Your task to perform on an android device: visit the assistant section in the google photos Image 0: 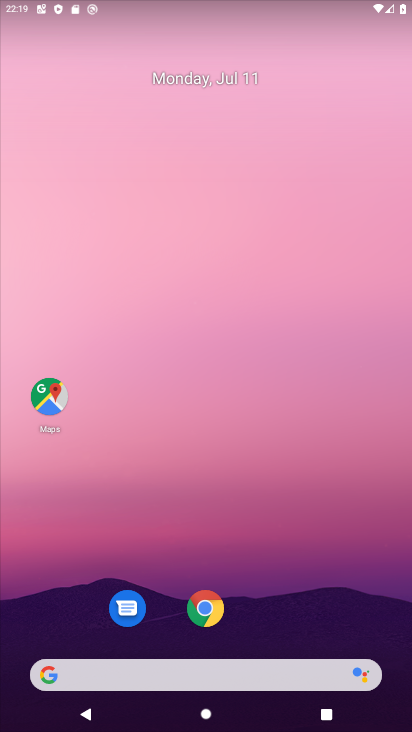
Step 0: drag from (32, 713) to (302, 44)
Your task to perform on an android device: visit the assistant section in the google photos Image 1: 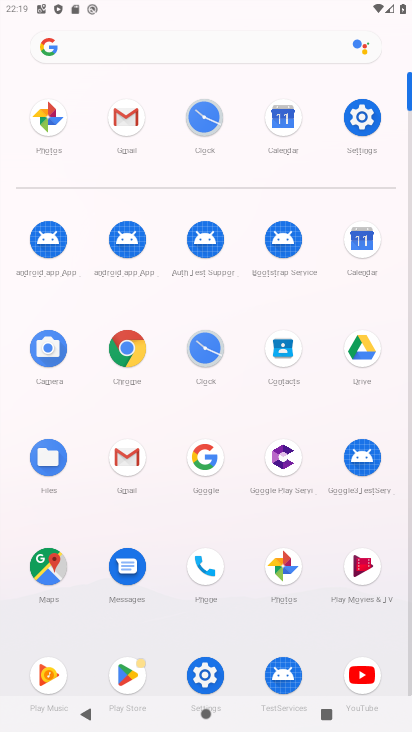
Step 1: click (281, 576)
Your task to perform on an android device: visit the assistant section in the google photos Image 2: 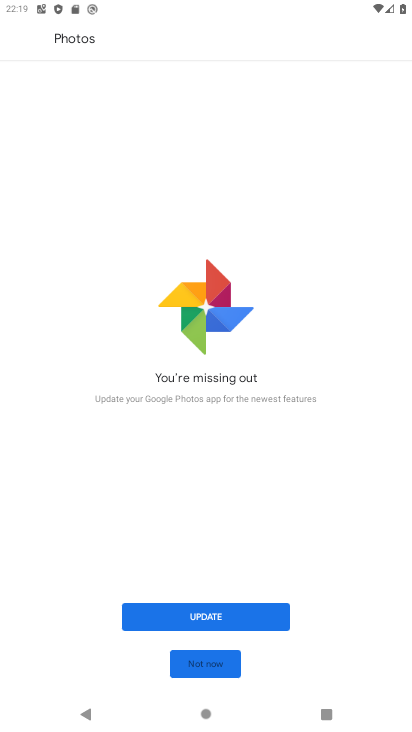
Step 2: click (201, 655)
Your task to perform on an android device: visit the assistant section in the google photos Image 3: 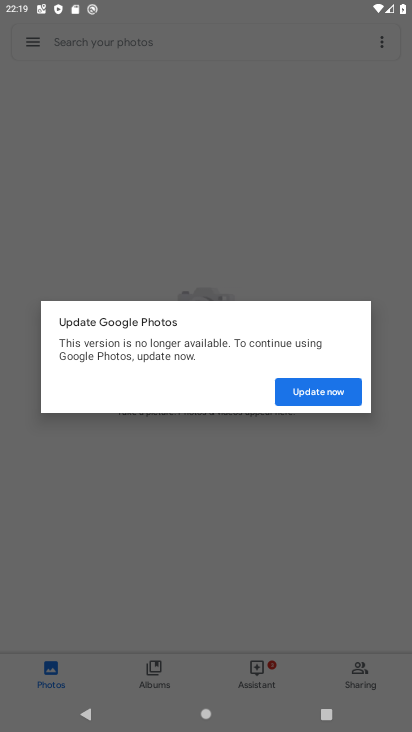
Step 3: click (321, 388)
Your task to perform on an android device: visit the assistant section in the google photos Image 4: 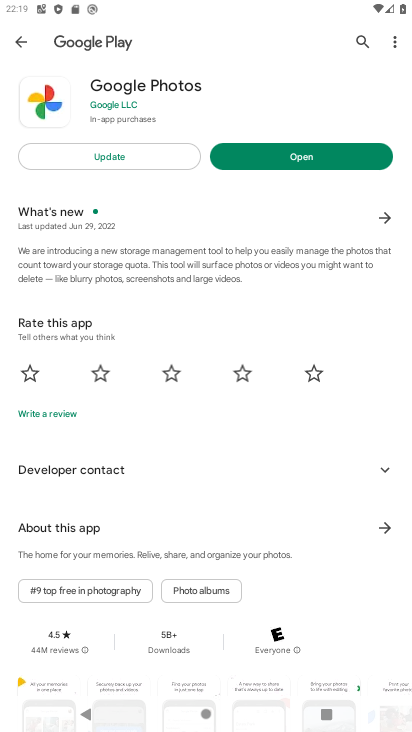
Step 4: click (304, 159)
Your task to perform on an android device: visit the assistant section in the google photos Image 5: 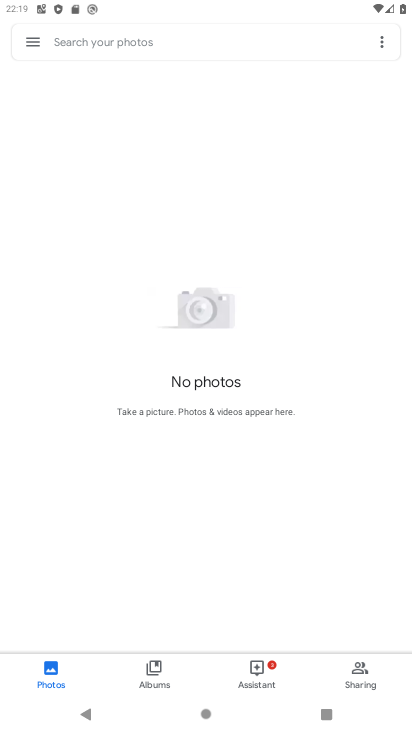
Step 5: click (242, 659)
Your task to perform on an android device: visit the assistant section in the google photos Image 6: 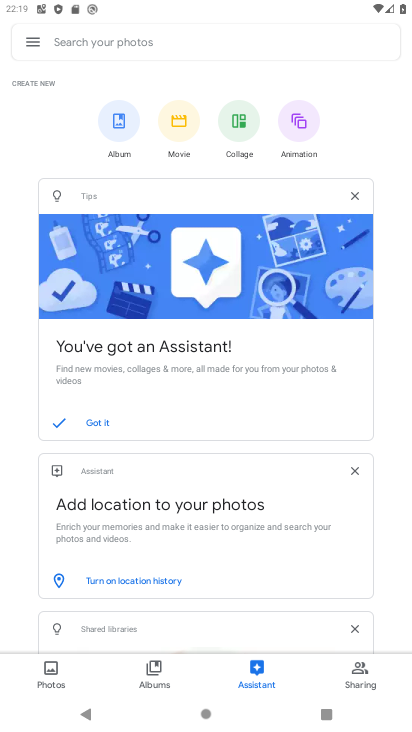
Step 6: task complete